Your task to perform on an android device: uninstall "Yahoo Mail" Image 0: 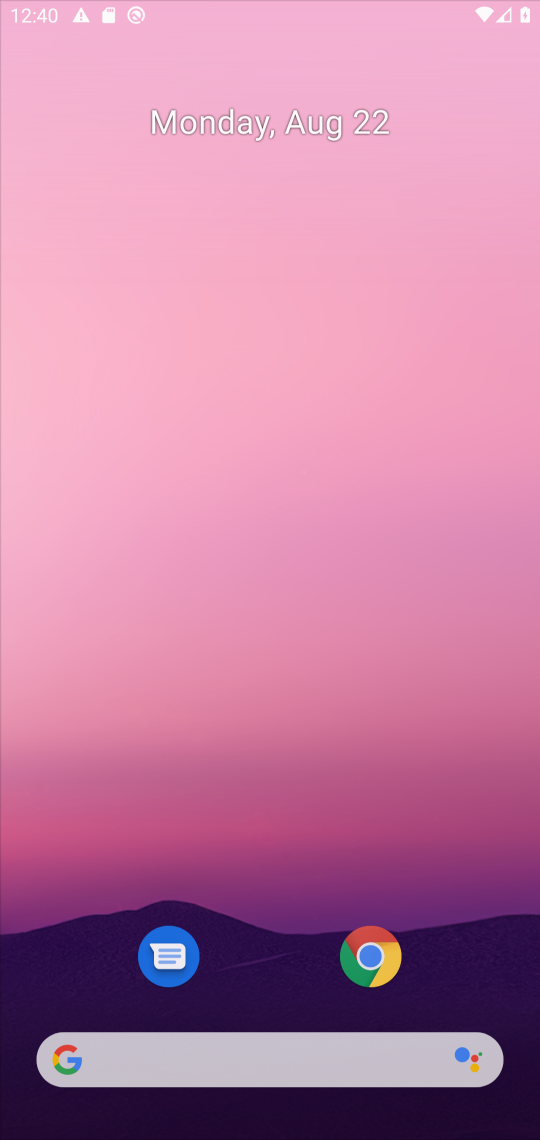
Step 0: press home button
Your task to perform on an android device: uninstall "Yahoo Mail" Image 1: 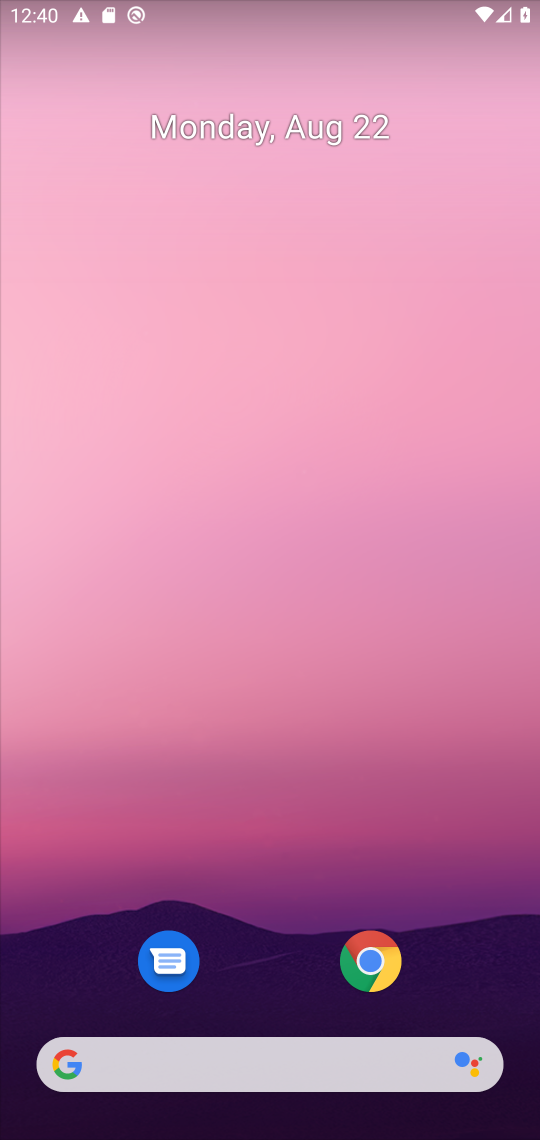
Step 1: drag from (444, 953) to (480, 306)
Your task to perform on an android device: uninstall "Yahoo Mail" Image 2: 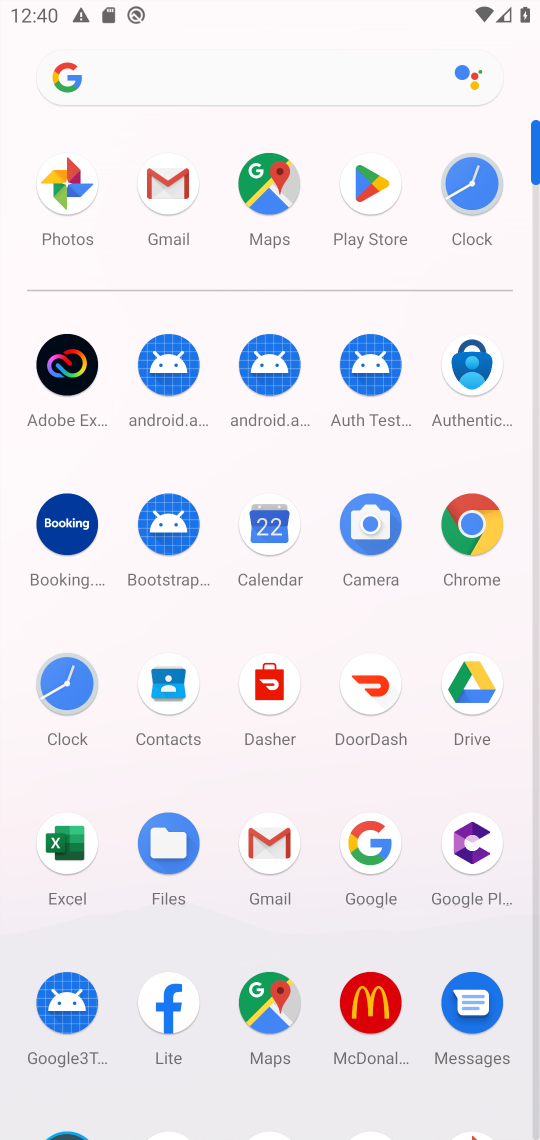
Step 2: click (369, 192)
Your task to perform on an android device: uninstall "Yahoo Mail" Image 3: 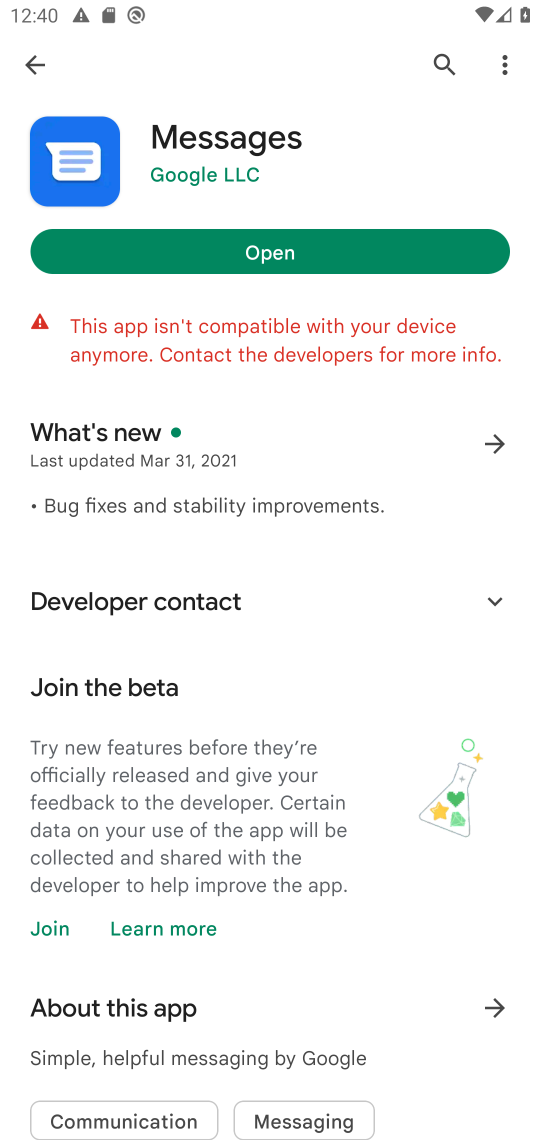
Step 3: press back button
Your task to perform on an android device: uninstall "Yahoo Mail" Image 4: 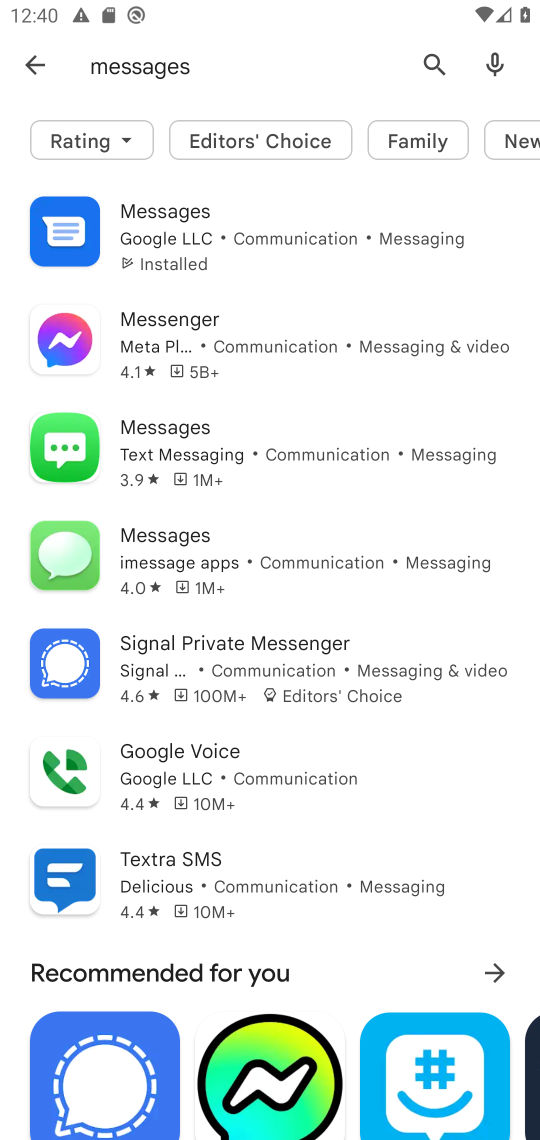
Step 4: press back button
Your task to perform on an android device: uninstall "Yahoo Mail" Image 5: 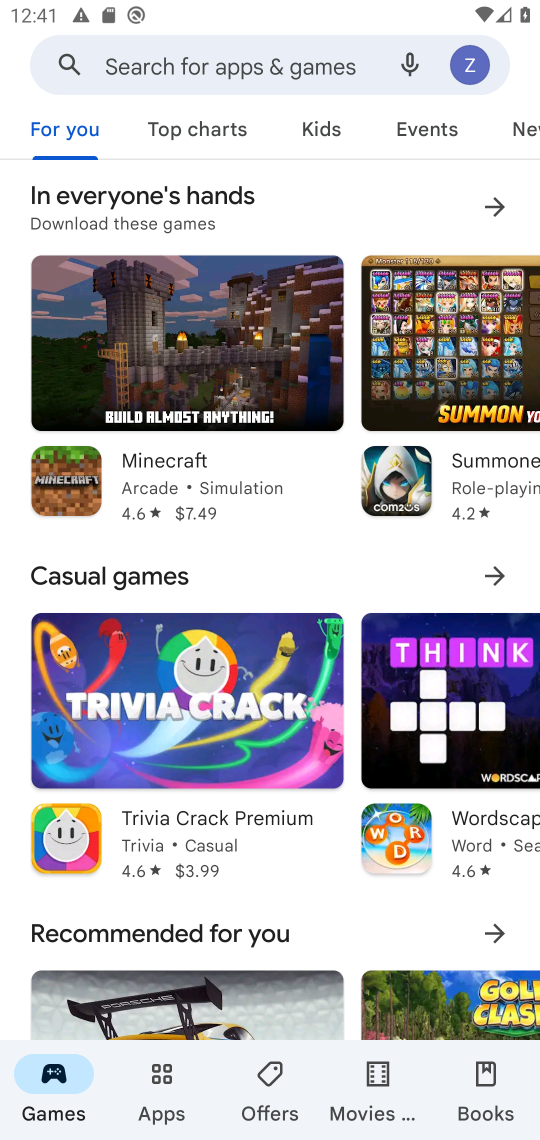
Step 5: click (309, 77)
Your task to perform on an android device: uninstall "Yahoo Mail" Image 6: 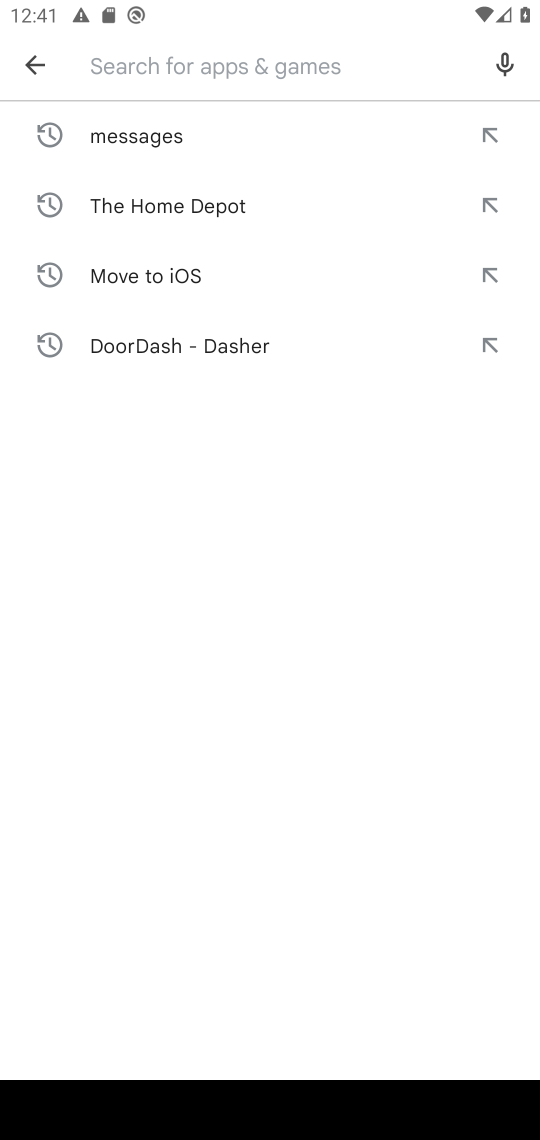
Step 6: press enter
Your task to perform on an android device: uninstall "Yahoo Mail" Image 7: 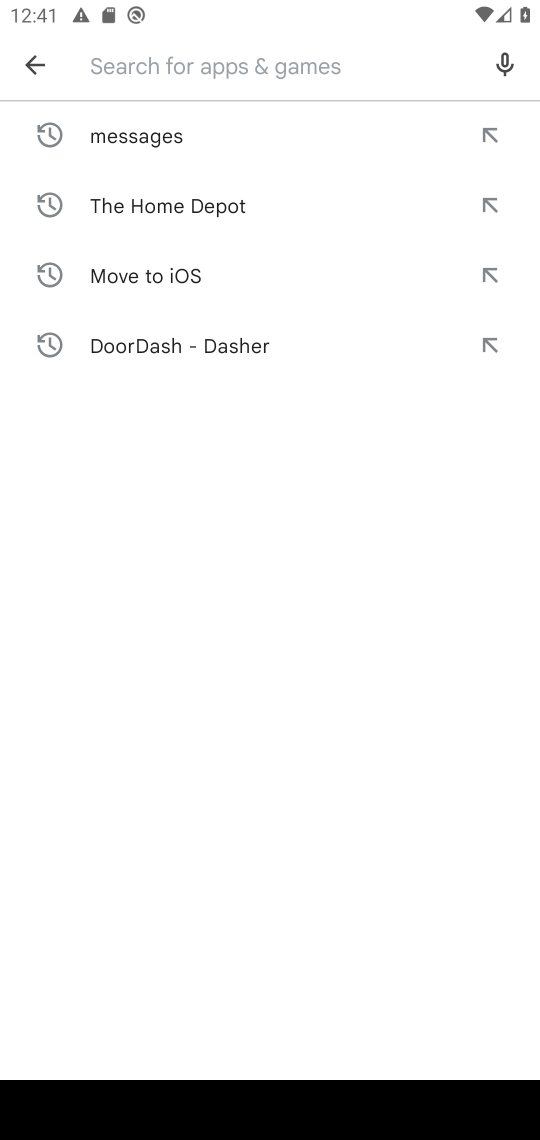
Step 7: type "yahoo mail"
Your task to perform on an android device: uninstall "Yahoo Mail" Image 8: 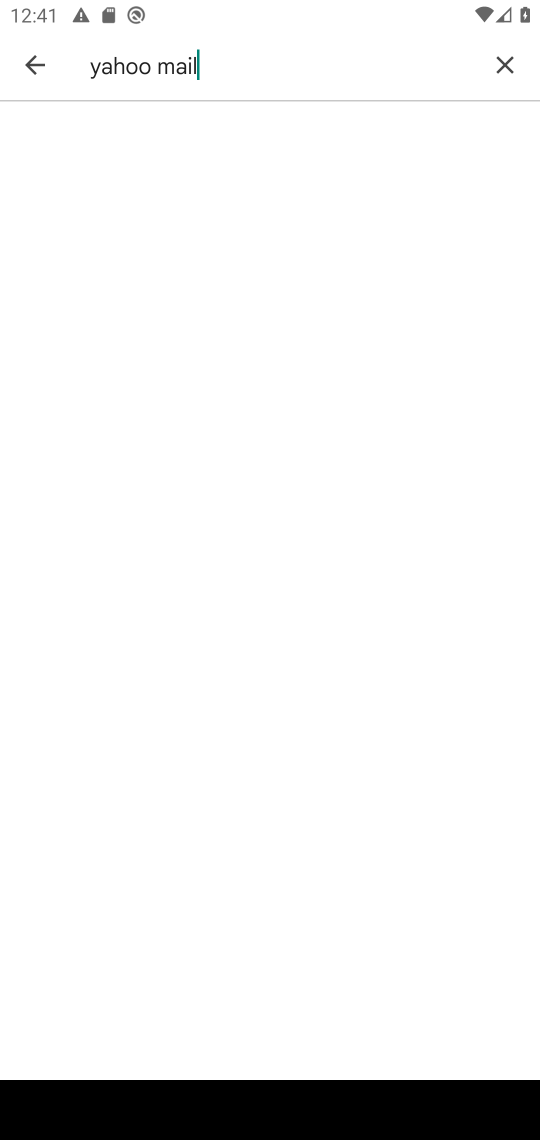
Step 8: task complete